Your task to perform on an android device: turn on bluetooth scan Image 0: 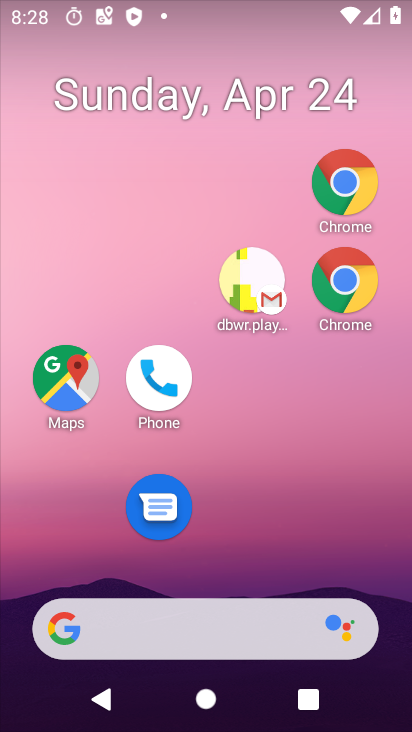
Step 0: drag from (221, 648) to (118, 96)
Your task to perform on an android device: turn on bluetooth scan Image 1: 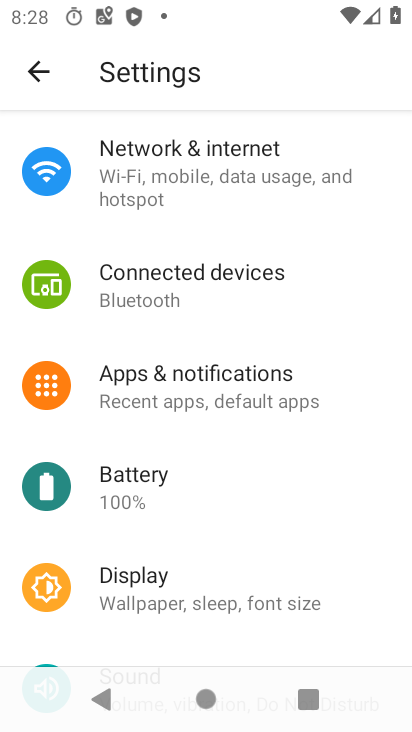
Step 1: drag from (93, 374) to (73, 179)
Your task to perform on an android device: turn on bluetooth scan Image 2: 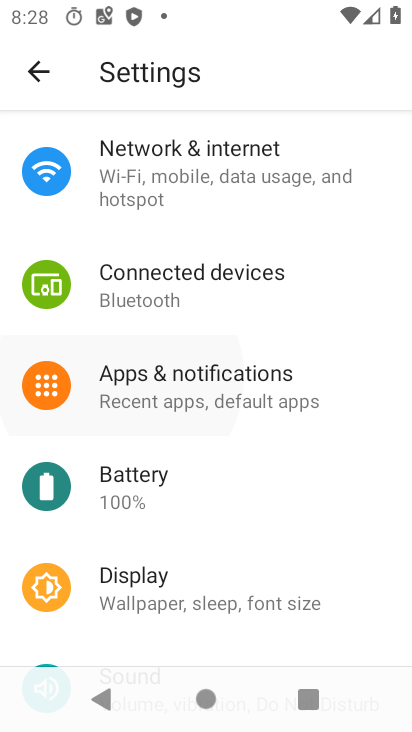
Step 2: drag from (174, 478) to (133, 175)
Your task to perform on an android device: turn on bluetooth scan Image 3: 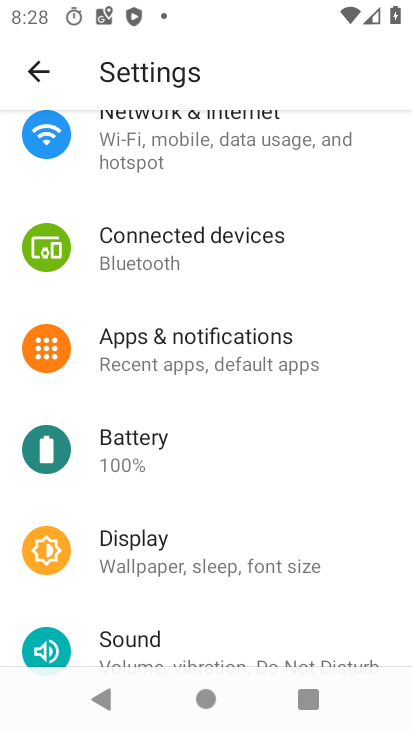
Step 3: drag from (254, 558) to (298, 123)
Your task to perform on an android device: turn on bluetooth scan Image 4: 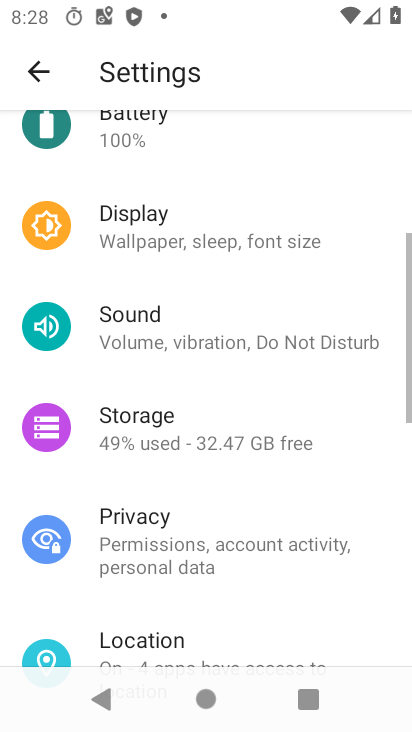
Step 4: drag from (259, 579) to (219, 119)
Your task to perform on an android device: turn on bluetooth scan Image 5: 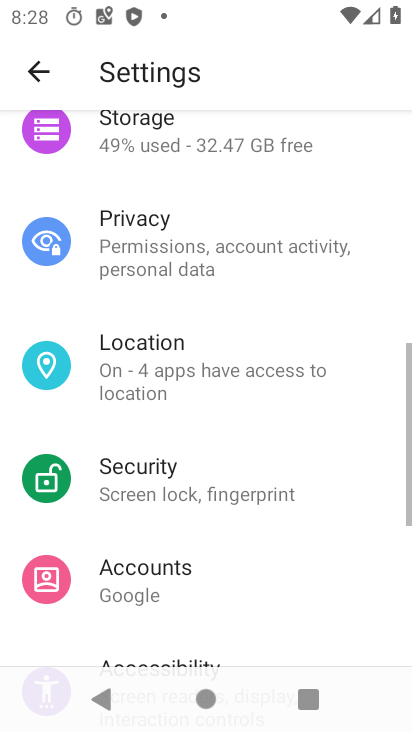
Step 5: drag from (196, 246) to (172, 94)
Your task to perform on an android device: turn on bluetooth scan Image 6: 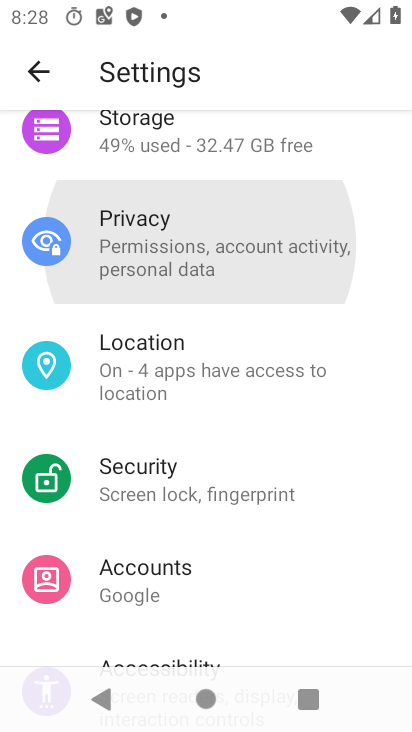
Step 6: drag from (186, 486) to (166, 64)
Your task to perform on an android device: turn on bluetooth scan Image 7: 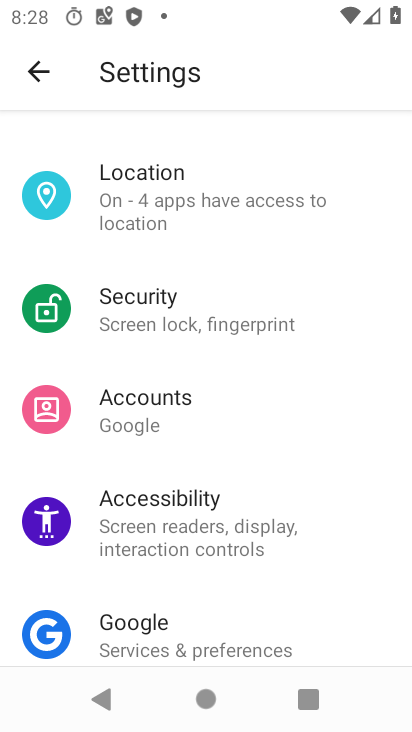
Step 7: click (169, 201)
Your task to perform on an android device: turn on bluetooth scan Image 8: 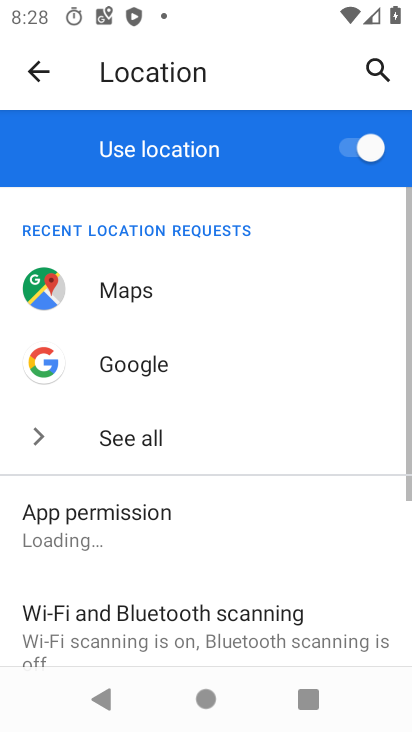
Step 8: drag from (179, 507) to (103, 23)
Your task to perform on an android device: turn on bluetooth scan Image 9: 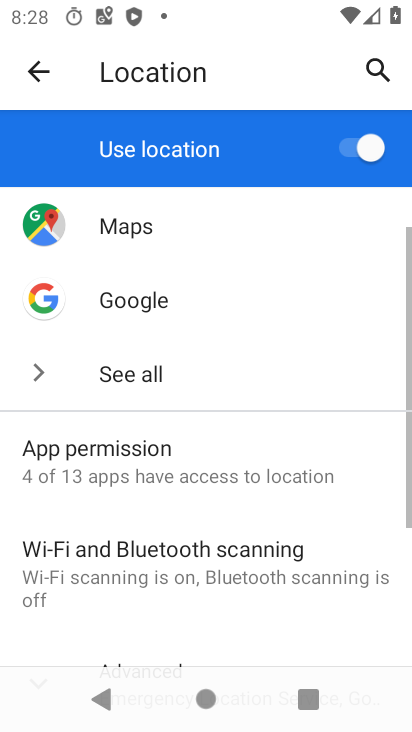
Step 9: click (173, 549)
Your task to perform on an android device: turn on bluetooth scan Image 10: 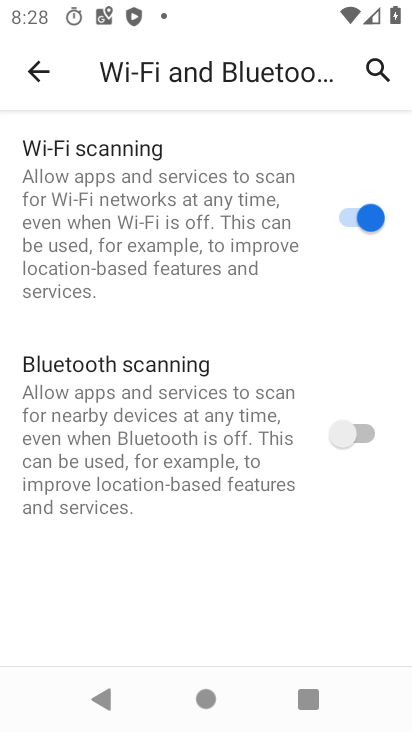
Step 10: click (328, 439)
Your task to perform on an android device: turn on bluetooth scan Image 11: 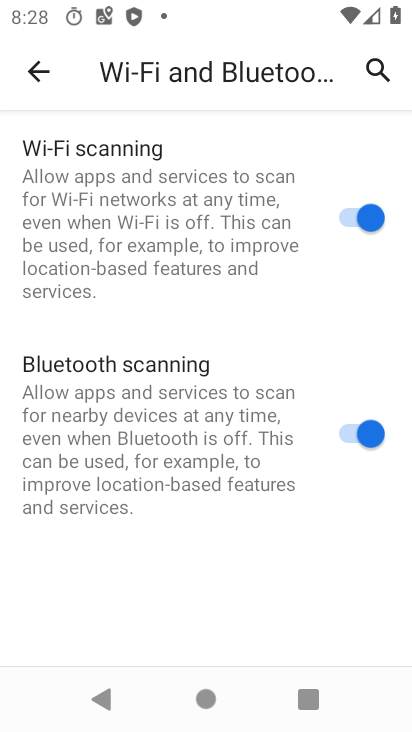
Step 11: task complete